Your task to perform on an android device: When is my next meeting? Image 0: 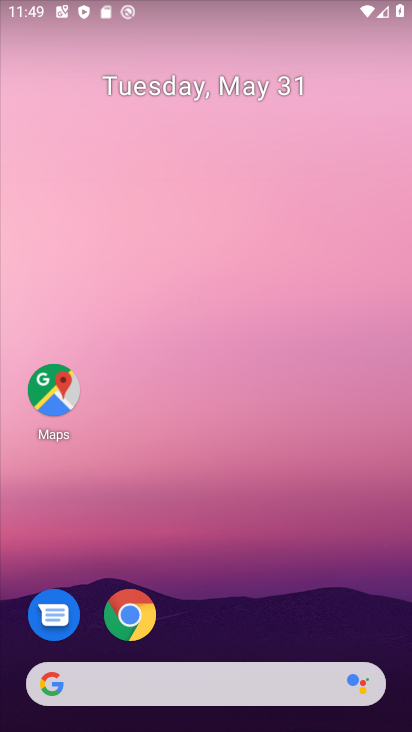
Step 0: task complete